Your task to perform on an android device: set the stopwatch Image 0: 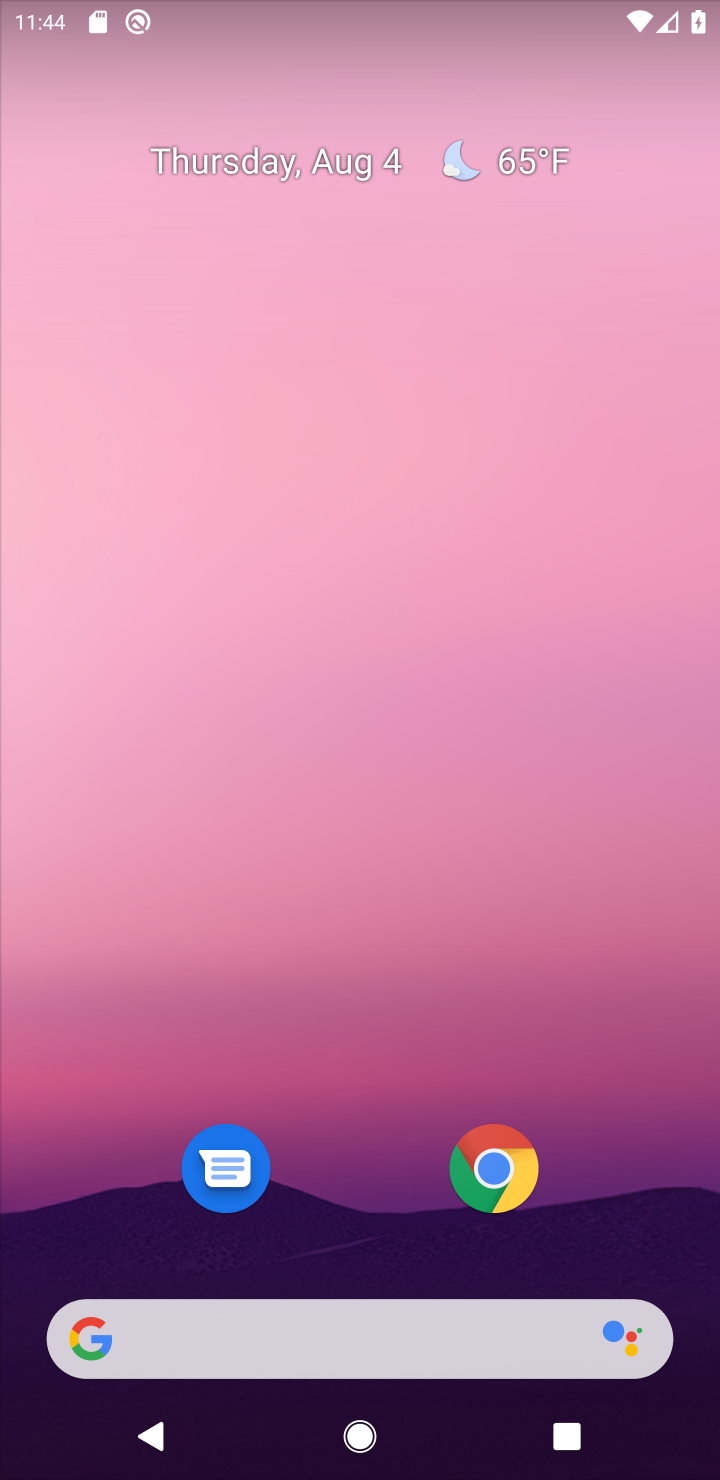
Step 0: drag from (333, 1235) to (475, 21)
Your task to perform on an android device: set the stopwatch Image 1: 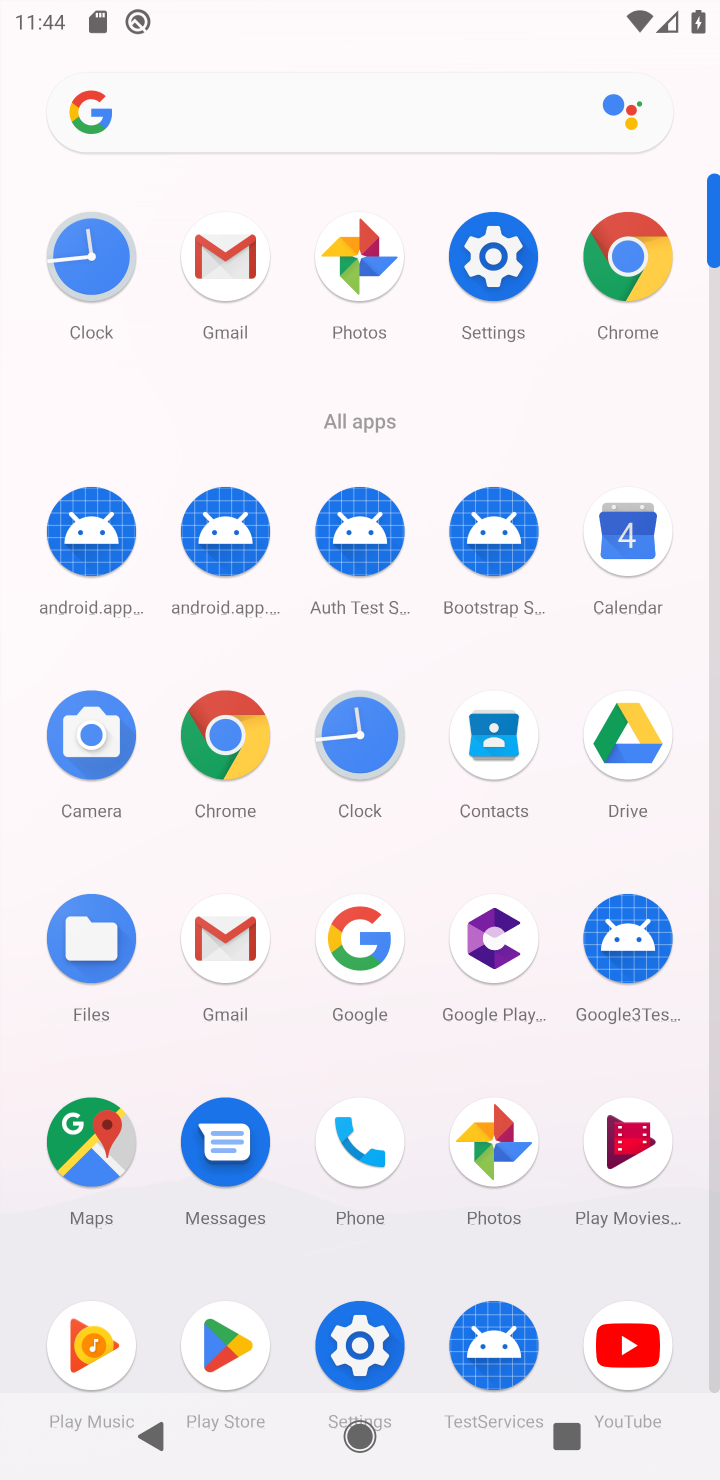
Step 1: click (376, 739)
Your task to perform on an android device: set the stopwatch Image 2: 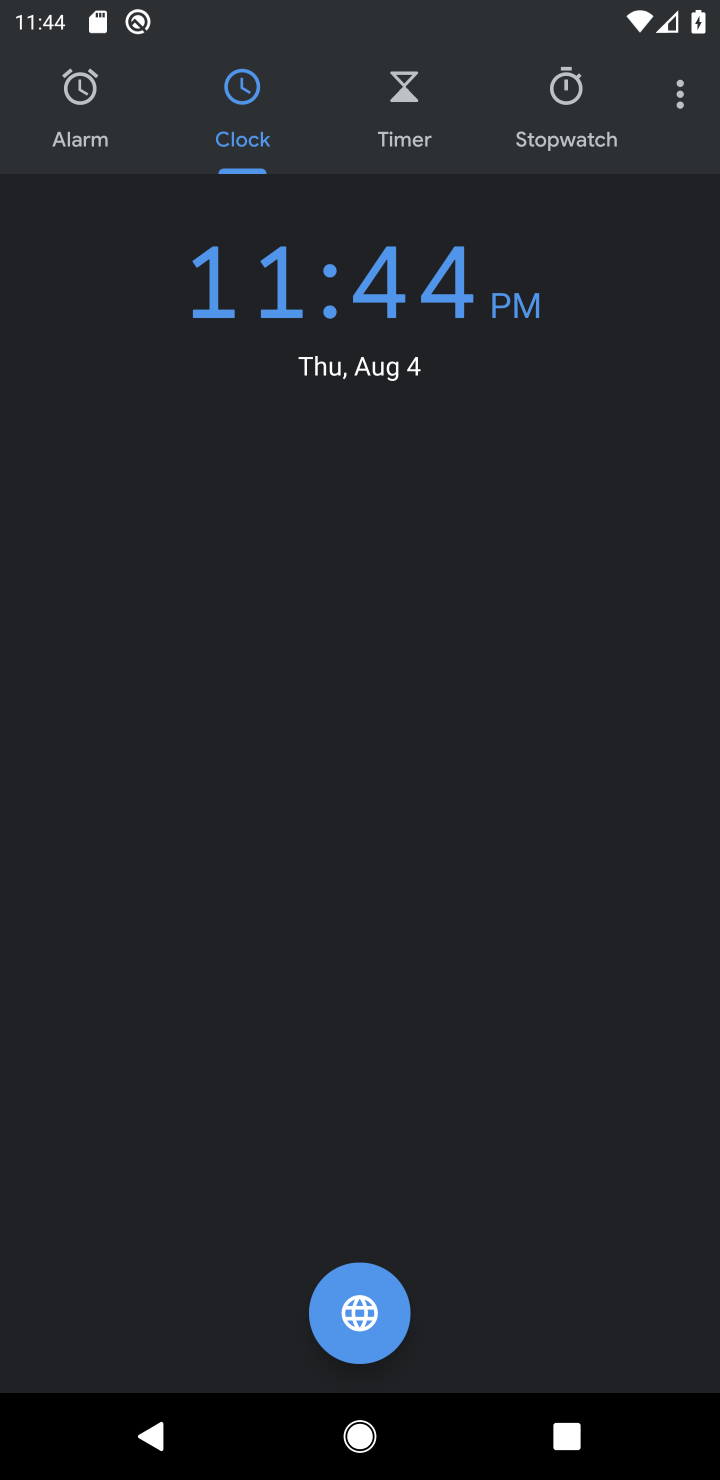
Step 2: click (570, 114)
Your task to perform on an android device: set the stopwatch Image 3: 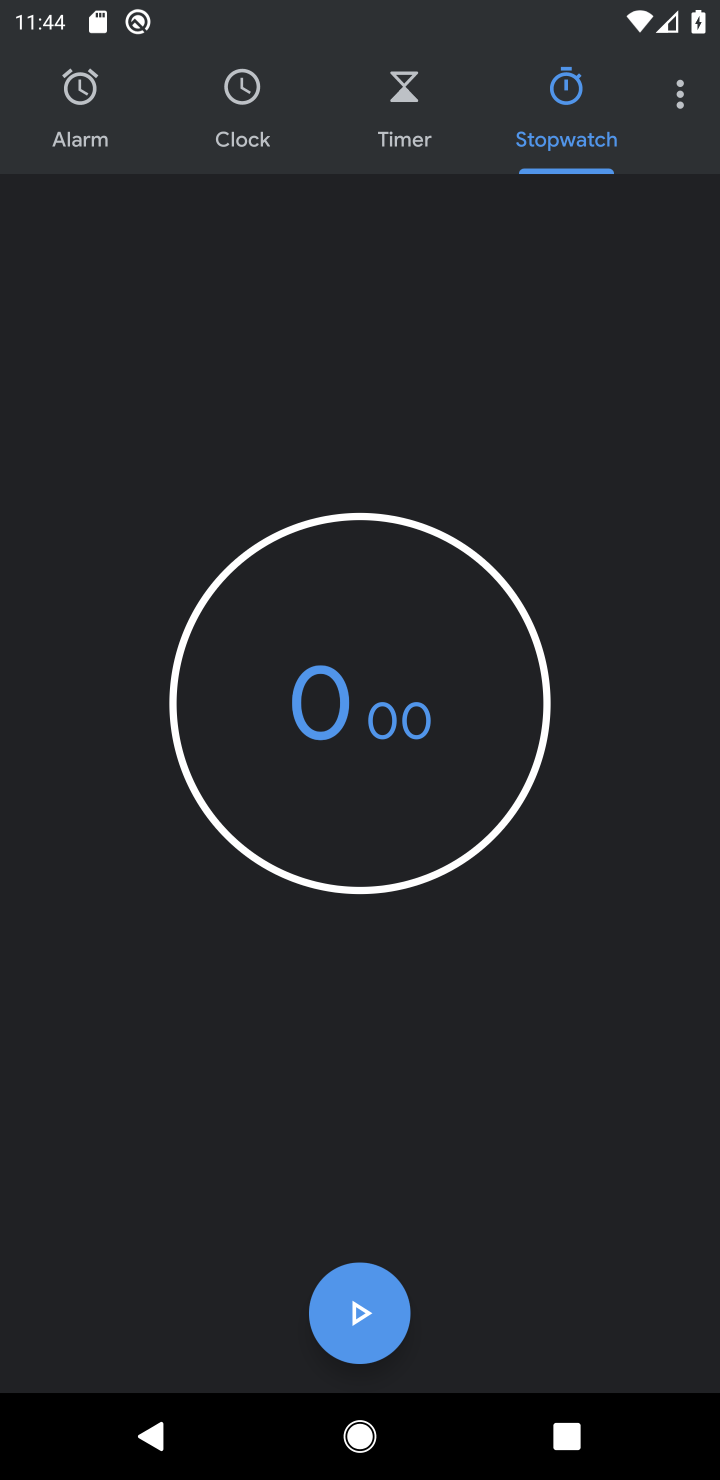
Step 3: click (337, 1315)
Your task to perform on an android device: set the stopwatch Image 4: 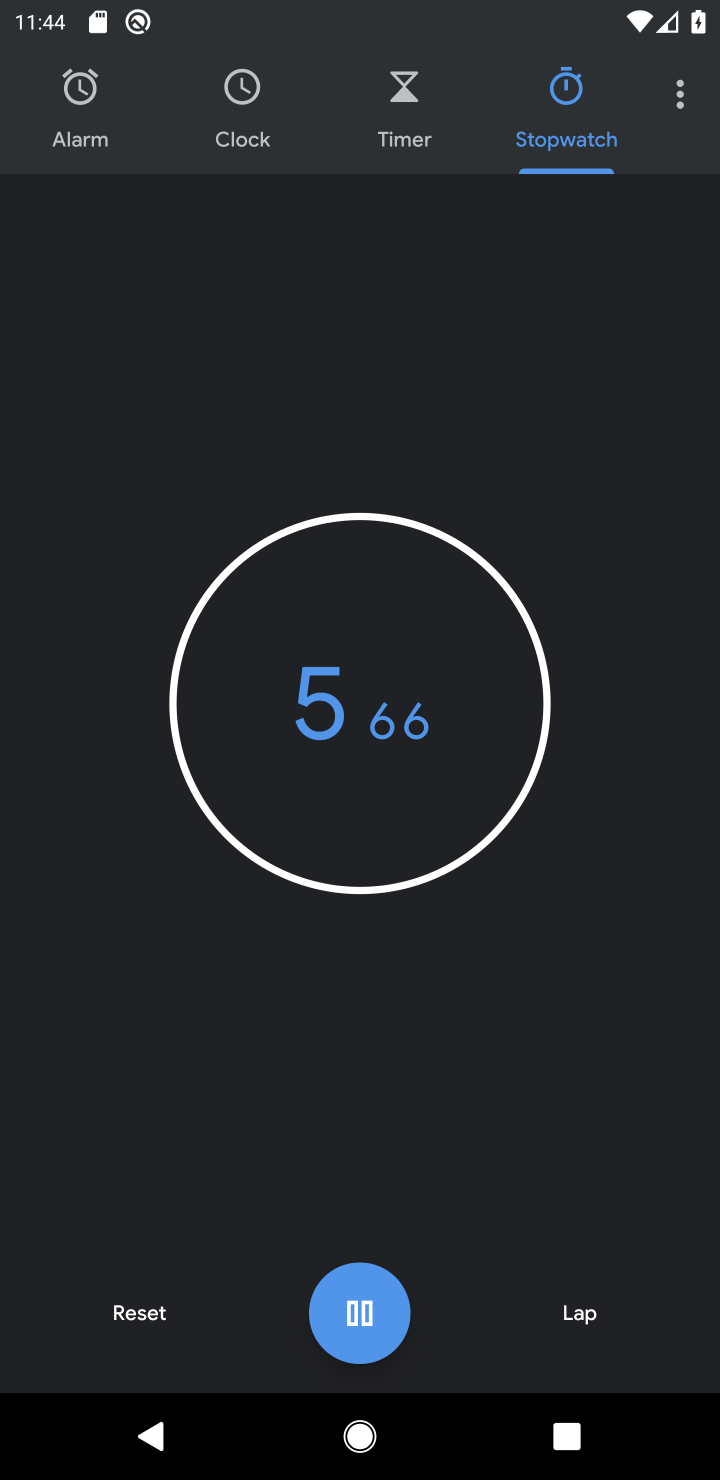
Step 4: task complete